Your task to perform on an android device: Open network settings Image 0: 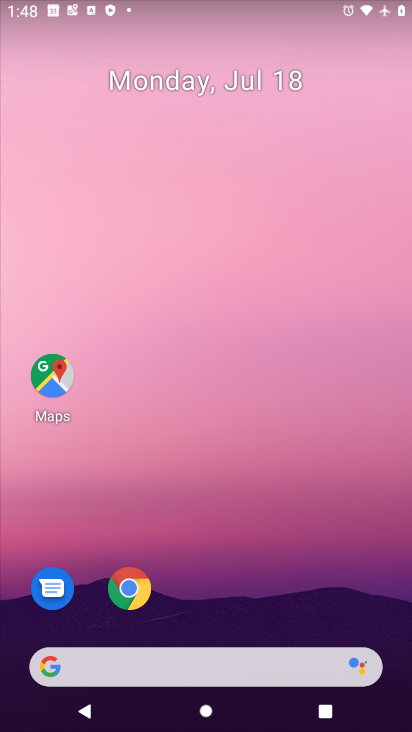
Step 0: drag from (254, 685) to (302, 339)
Your task to perform on an android device: Open network settings Image 1: 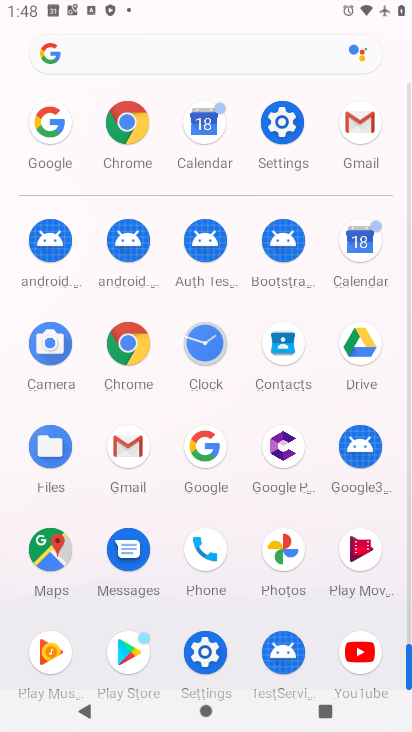
Step 1: click (269, 146)
Your task to perform on an android device: Open network settings Image 2: 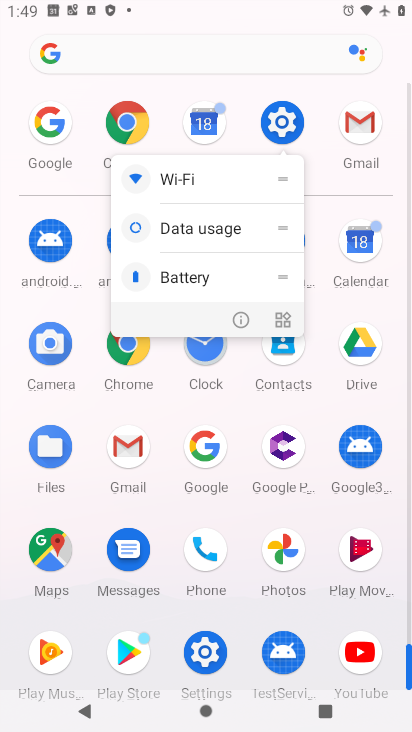
Step 2: drag from (112, 600) to (147, 438)
Your task to perform on an android device: Open network settings Image 3: 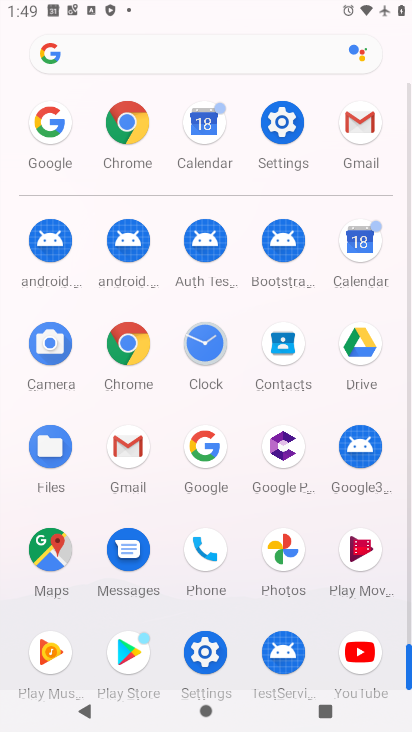
Step 3: drag from (117, 557) to (170, 352)
Your task to perform on an android device: Open network settings Image 4: 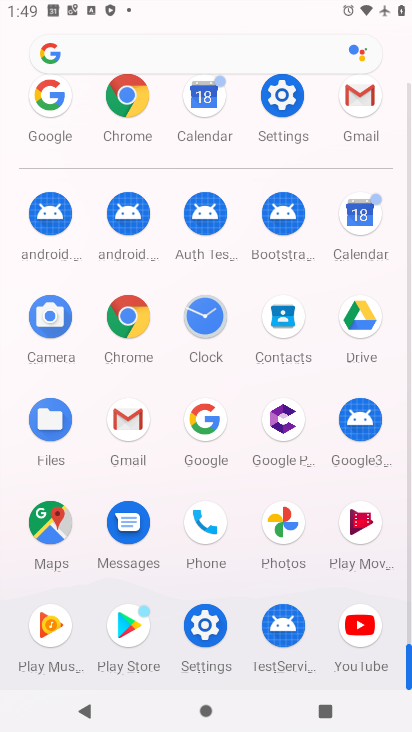
Step 4: click (301, 107)
Your task to perform on an android device: Open network settings Image 5: 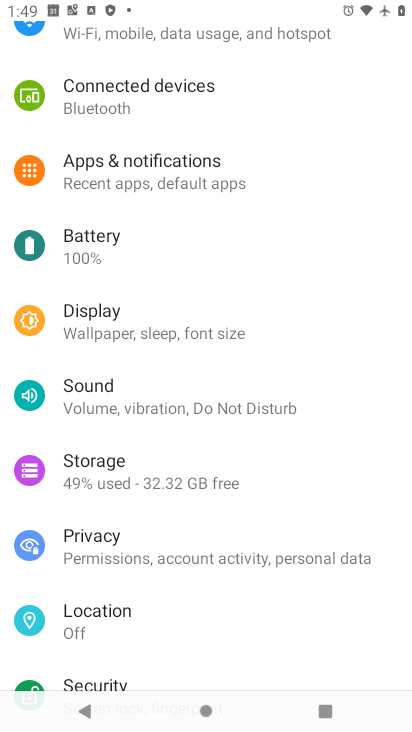
Step 5: click (239, 51)
Your task to perform on an android device: Open network settings Image 6: 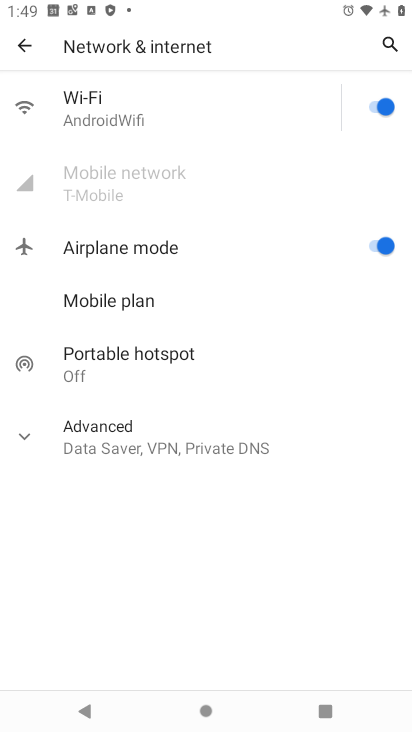
Step 6: task complete